Your task to perform on an android device: Open location settings Image 0: 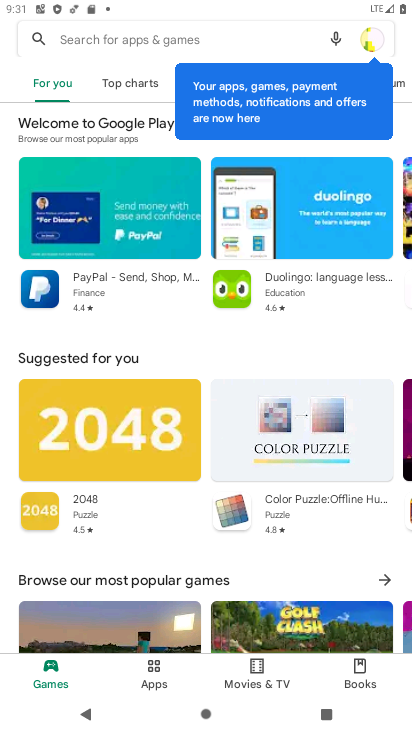
Step 0: press home button
Your task to perform on an android device: Open location settings Image 1: 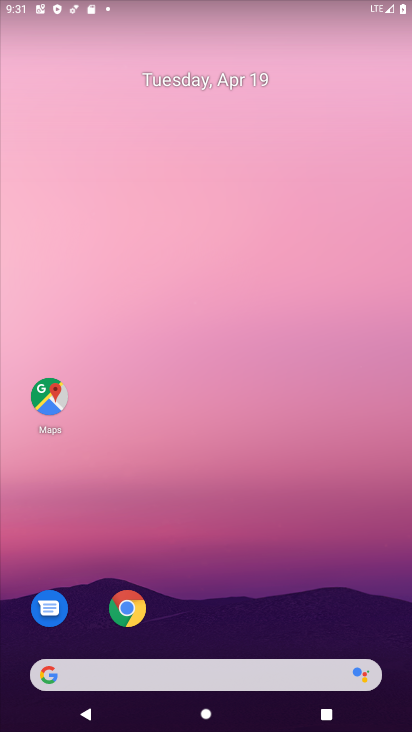
Step 1: drag from (385, 639) to (305, 171)
Your task to perform on an android device: Open location settings Image 2: 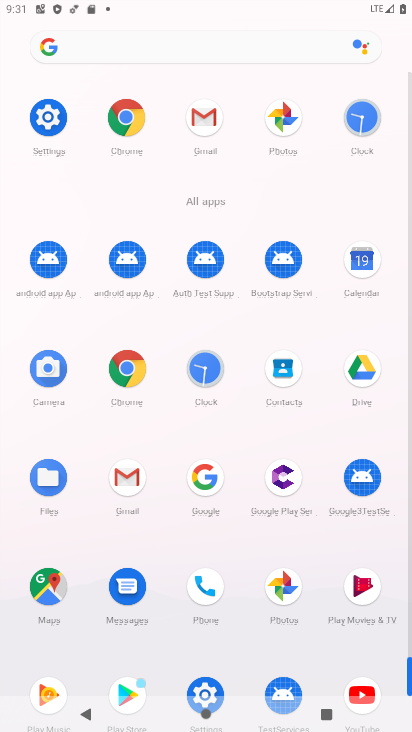
Step 2: click (202, 684)
Your task to perform on an android device: Open location settings Image 3: 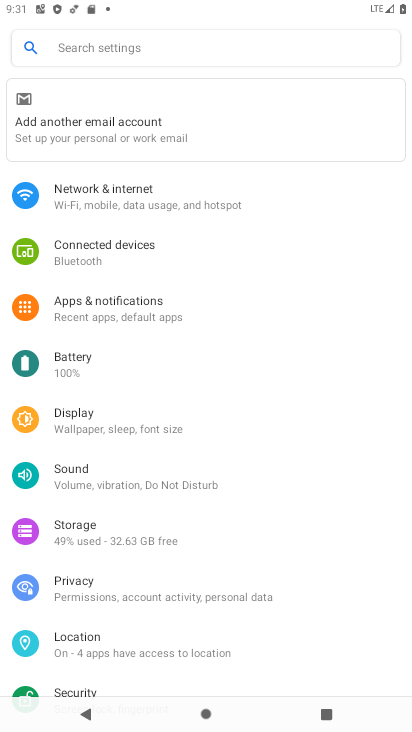
Step 3: drag from (239, 597) to (257, 339)
Your task to perform on an android device: Open location settings Image 4: 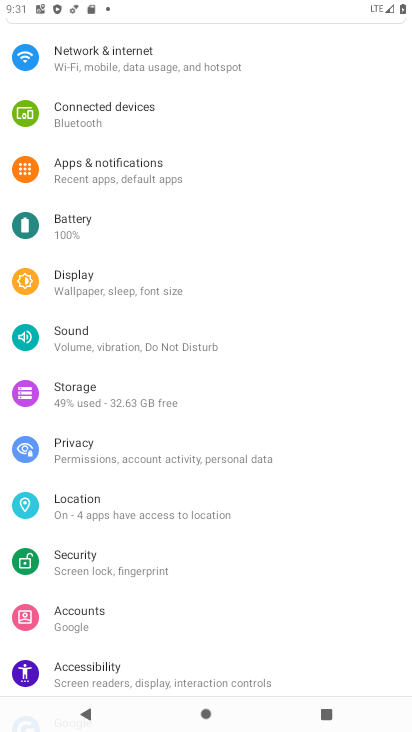
Step 4: click (77, 503)
Your task to perform on an android device: Open location settings Image 5: 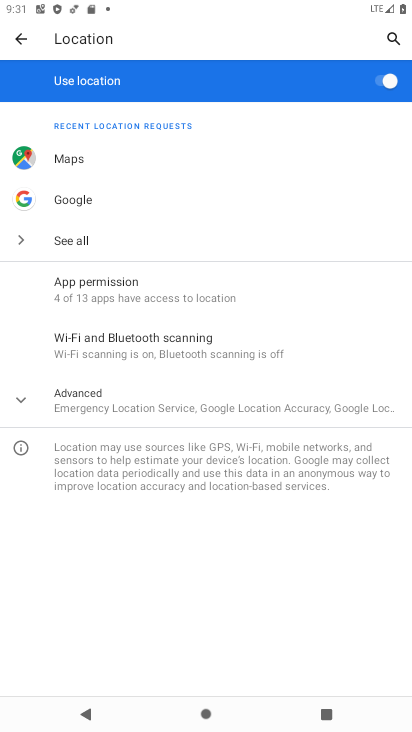
Step 5: click (15, 399)
Your task to perform on an android device: Open location settings Image 6: 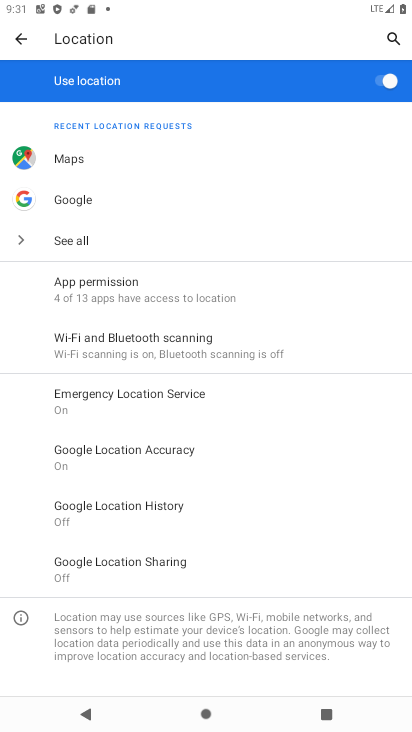
Step 6: task complete